Your task to perform on an android device: allow cookies in the chrome app Image 0: 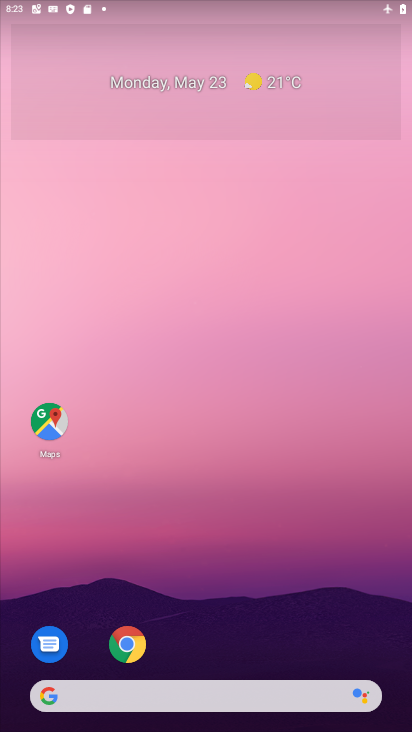
Step 0: click (123, 641)
Your task to perform on an android device: allow cookies in the chrome app Image 1: 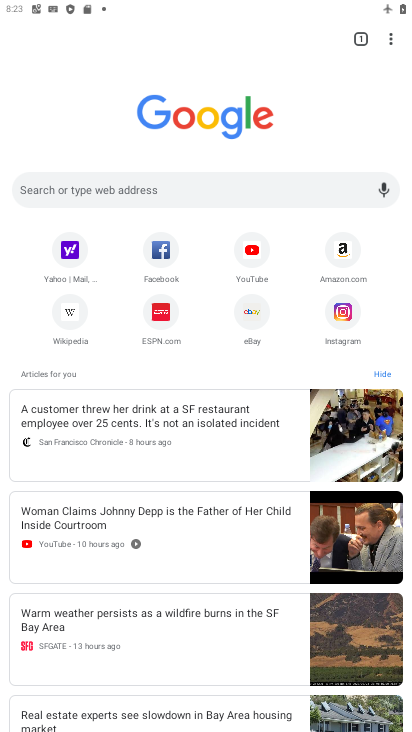
Step 1: click (390, 33)
Your task to perform on an android device: allow cookies in the chrome app Image 2: 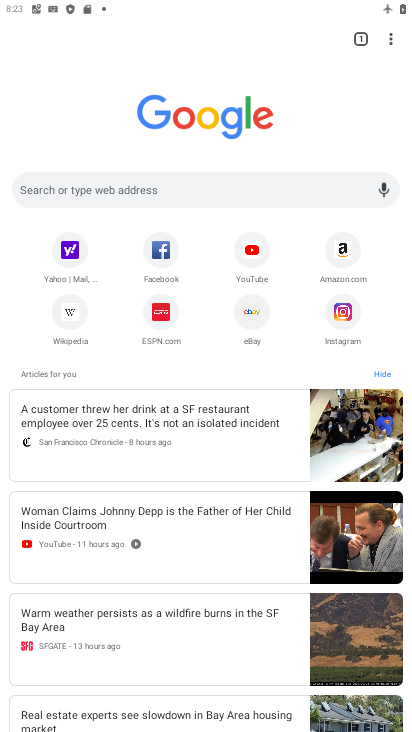
Step 2: click (395, 33)
Your task to perform on an android device: allow cookies in the chrome app Image 3: 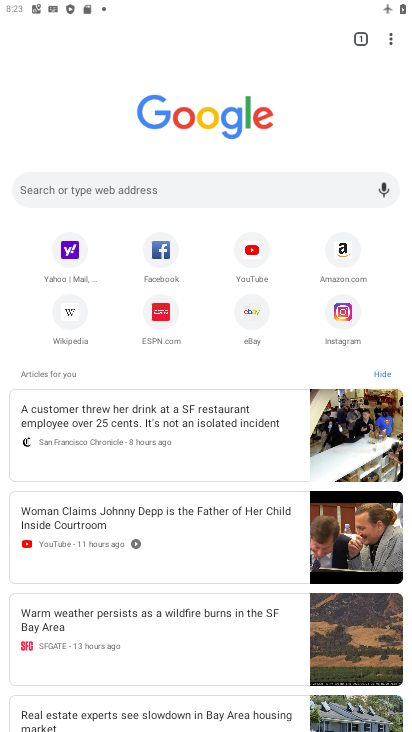
Step 3: click (392, 42)
Your task to perform on an android device: allow cookies in the chrome app Image 4: 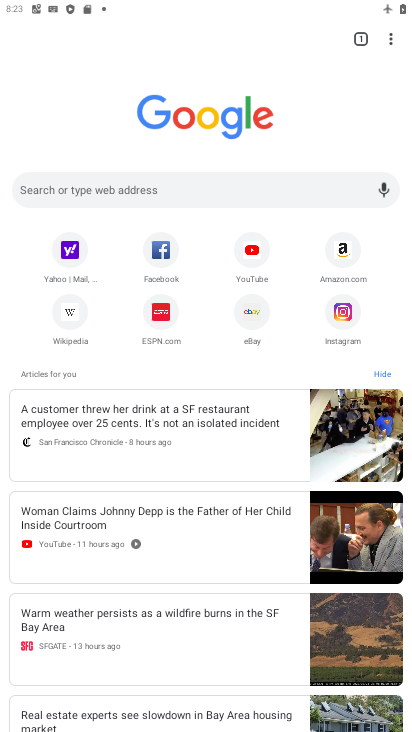
Step 4: click (396, 32)
Your task to perform on an android device: allow cookies in the chrome app Image 5: 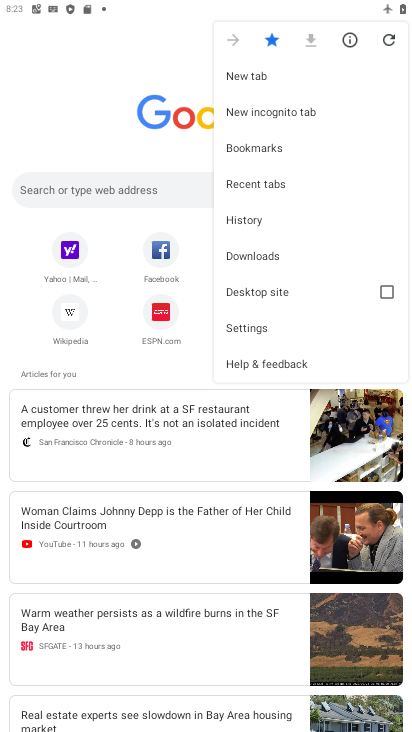
Step 5: click (247, 331)
Your task to perform on an android device: allow cookies in the chrome app Image 6: 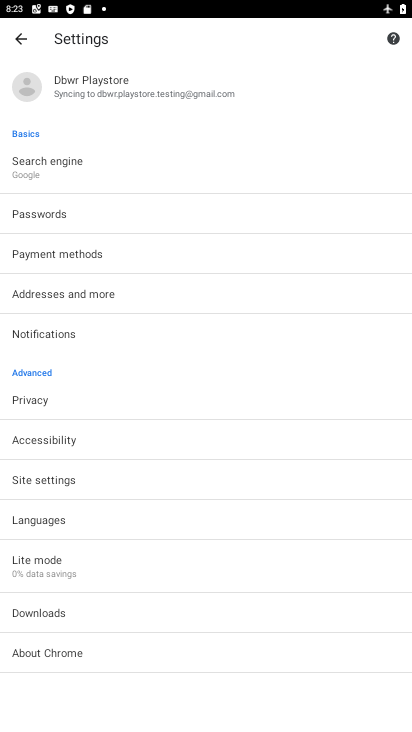
Step 6: click (73, 483)
Your task to perform on an android device: allow cookies in the chrome app Image 7: 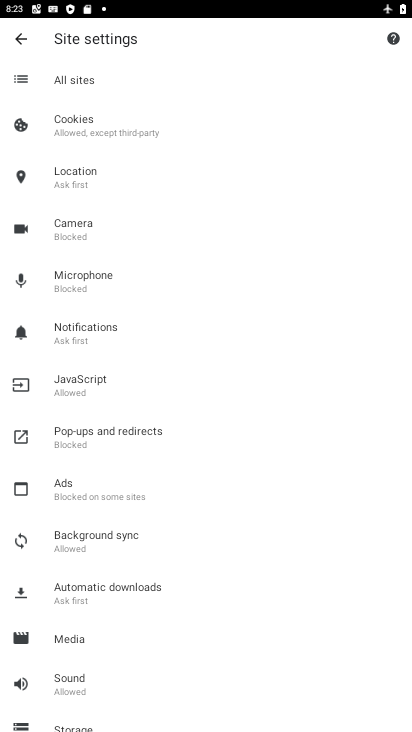
Step 7: click (88, 129)
Your task to perform on an android device: allow cookies in the chrome app Image 8: 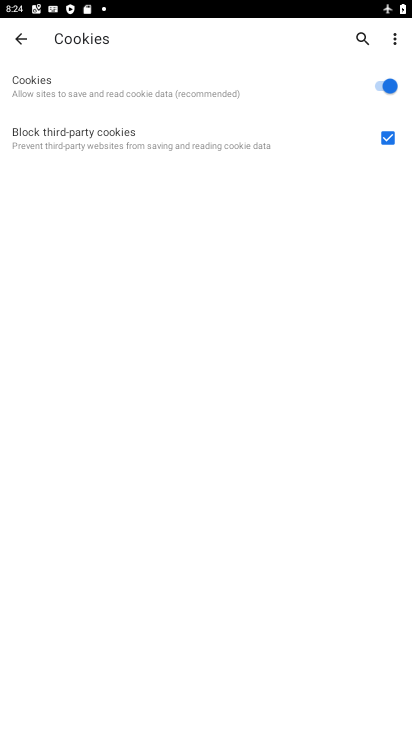
Step 8: task complete